Your task to perform on an android device: Search for Italian restaurants on Maps Image 0: 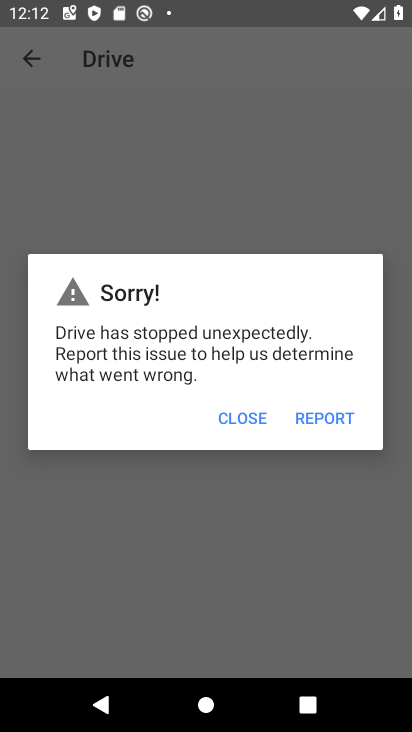
Step 0: press home button
Your task to perform on an android device: Search for Italian restaurants on Maps Image 1: 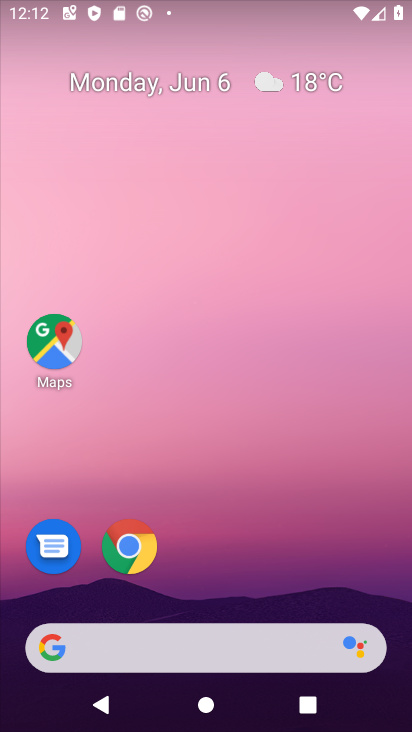
Step 1: click (65, 354)
Your task to perform on an android device: Search for Italian restaurants on Maps Image 2: 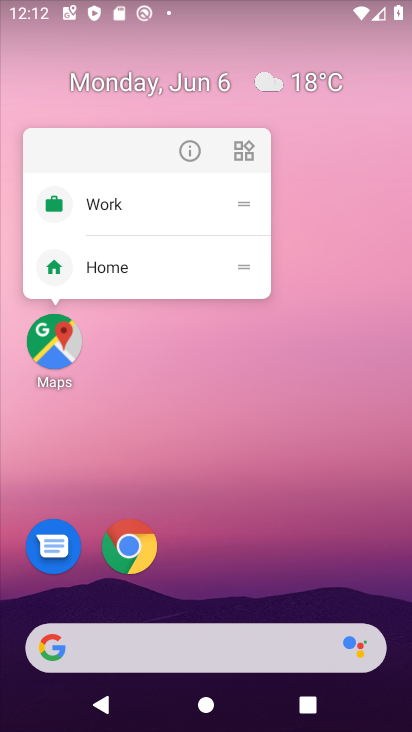
Step 2: click (67, 355)
Your task to perform on an android device: Search for Italian restaurants on Maps Image 3: 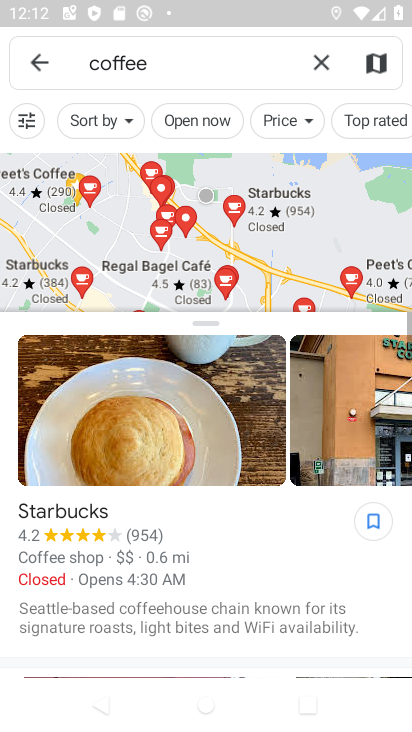
Step 3: click (322, 64)
Your task to perform on an android device: Search for Italian restaurants on Maps Image 4: 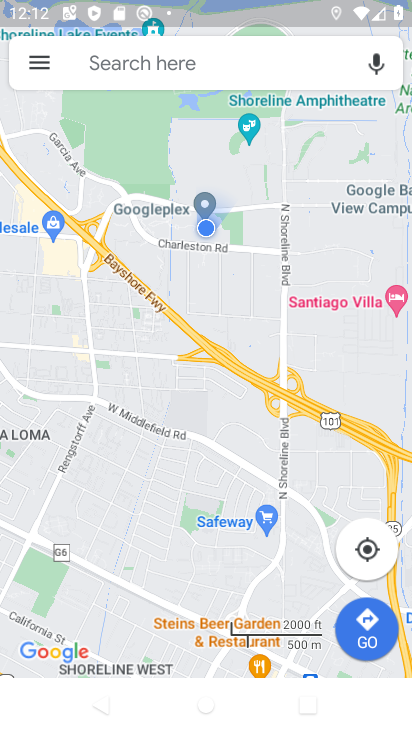
Step 4: click (155, 63)
Your task to perform on an android device: Search for Italian restaurants on Maps Image 5: 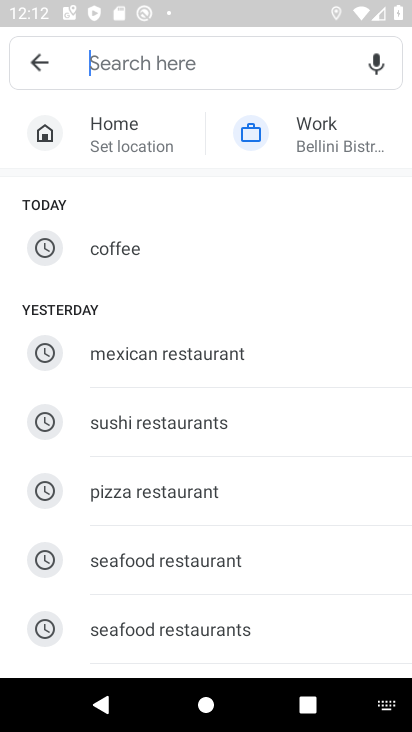
Step 5: type "Italian restaurants"
Your task to perform on an android device: Search for Italian restaurants on Maps Image 6: 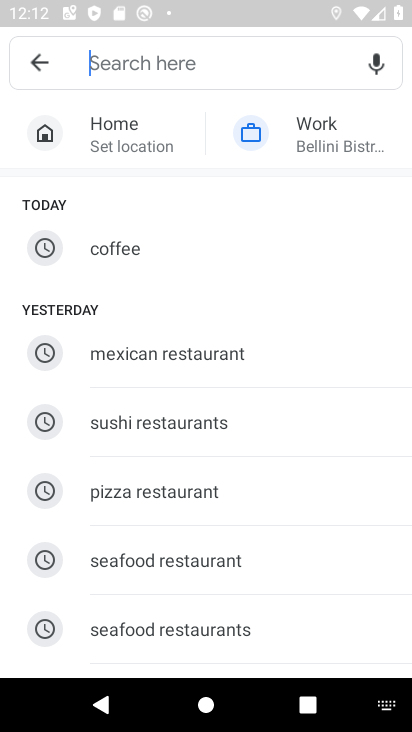
Step 6: click (239, 67)
Your task to perform on an android device: Search for Italian restaurants on Maps Image 7: 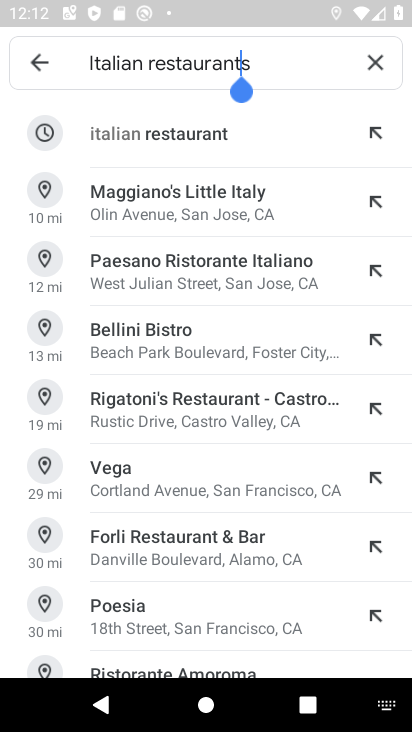
Step 7: click (160, 135)
Your task to perform on an android device: Search for Italian restaurants on Maps Image 8: 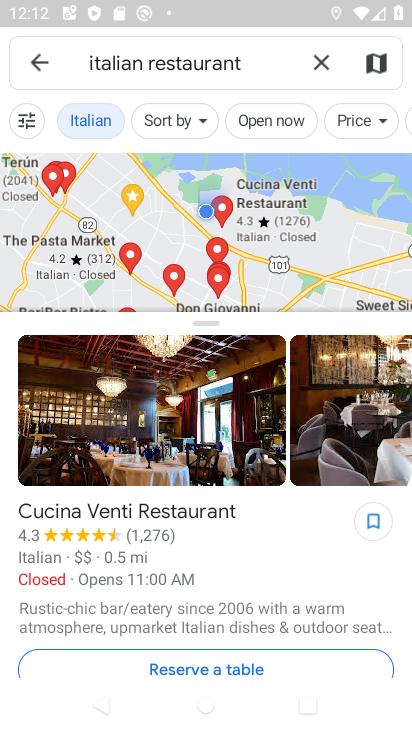
Step 8: task complete